Your task to perform on an android device: turn off wifi Image 0: 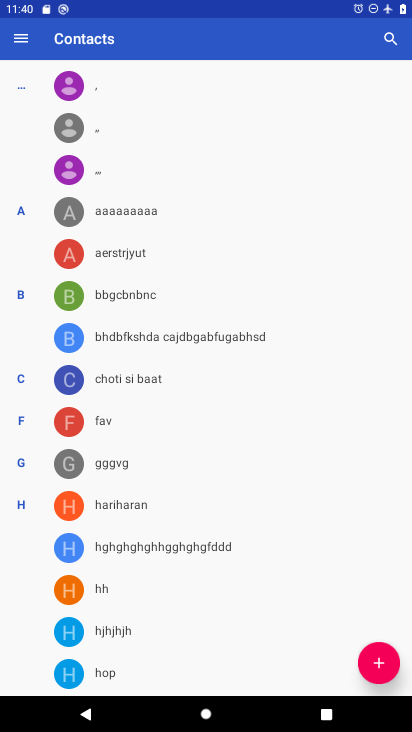
Step 0: press home button
Your task to perform on an android device: turn off wifi Image 1: 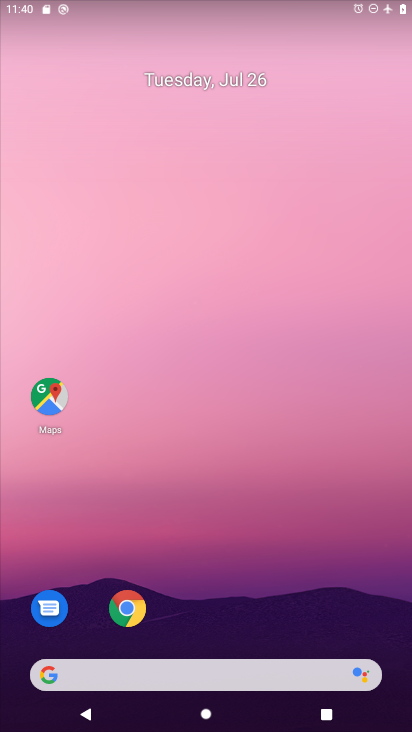
Step 1: drag from (253, 560) to (166, 71)
Your task to perform on an android device: turn off wifi Image 2: 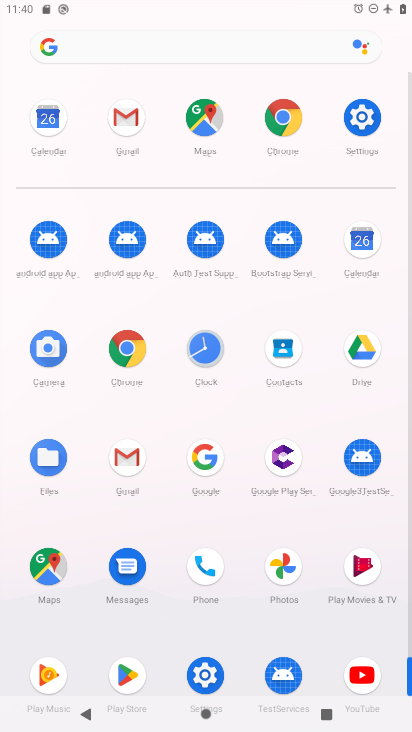
Step 2: click (355, 122)
Your task to perform on an android device: turn off wifi Image 3: 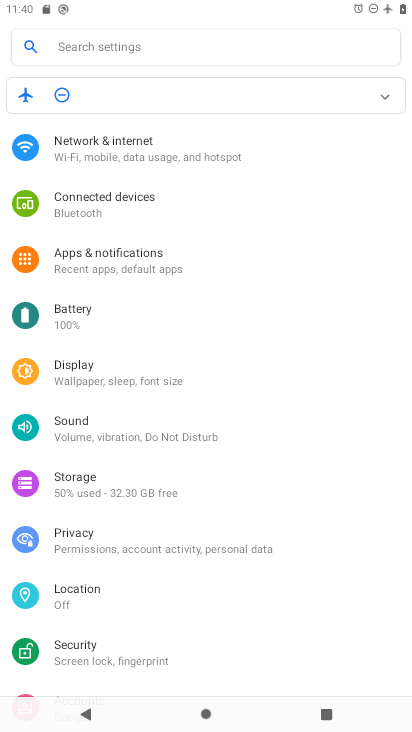
Step 3: click (133, 138)
Your task to perform on an android device: turn off wifi Image 4: 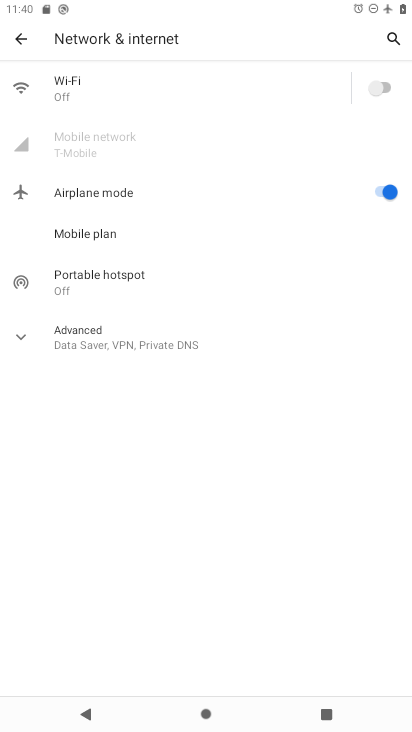
Step 4: task complete